Your task to perform on an android device: turn off location history Image 0: 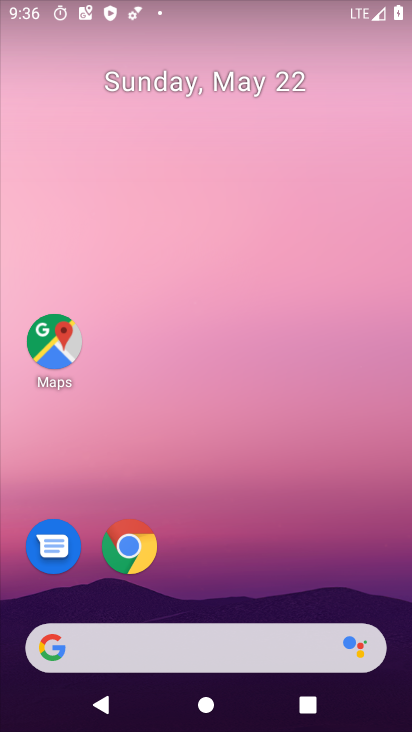
Step 0: drag from (220, 609) to (280, 235)
Your task to perform on an android device: turn off location history Image 1: 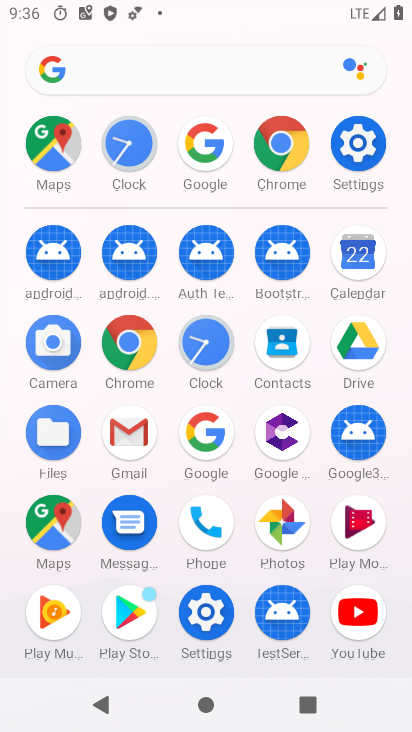
Step 1: click (368, 155)
Your task to perform on an android device: turn off location history Image 2: 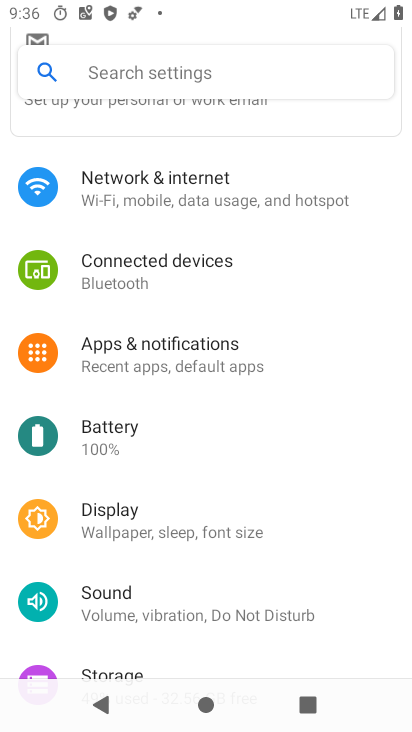
Step 2: drag from (214, 524) to (274, 15)
Your task to perform on an android device: turn off location history Image 3: 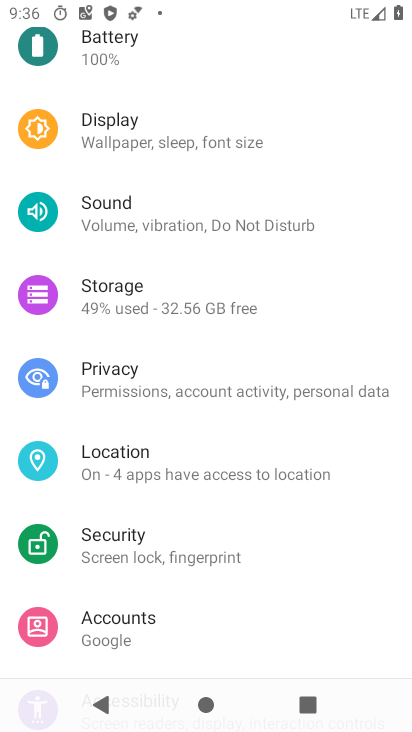
Step 3: click (112, 453)
Your task to perform on an android device: turn off location history Image 4: 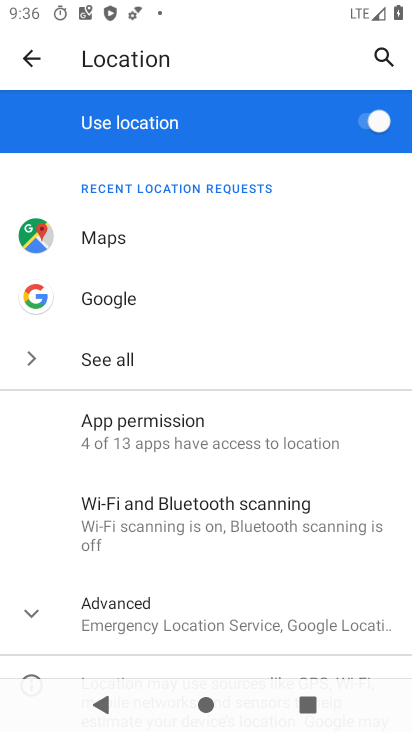
Step 4: click (206, 609)
Your task to perform on an android device: turn off location history Image 5: 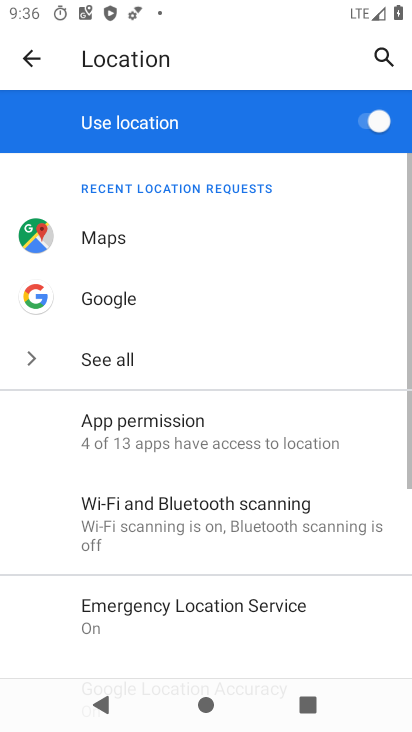
Step 5: drag from (206, 607) to (277, 131)
Your task to perform on an android device: turn off location history Image 6: 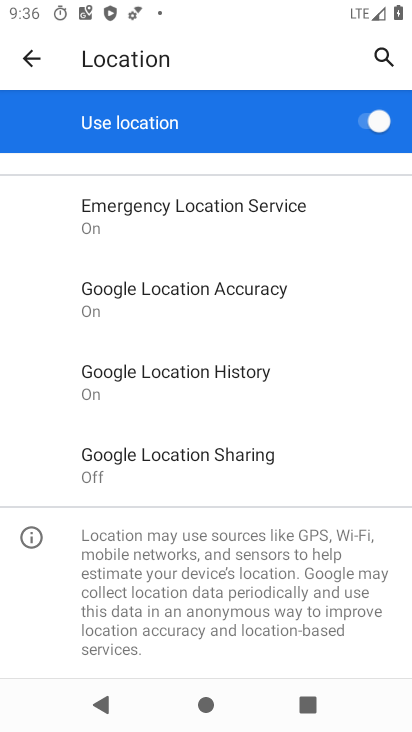
Step 6: click (179, 382)
Your task to perform on an android device: turn off location history Image 7: 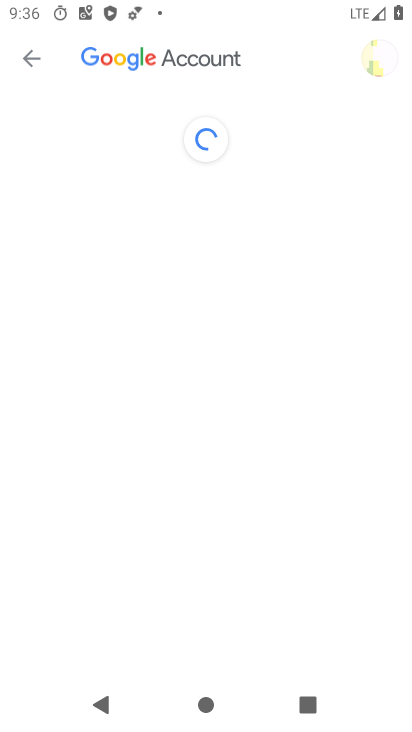
Step 7: task complete